Your task to perform on an android device: read, delete, or share a saved page in the chrome app Image 0: 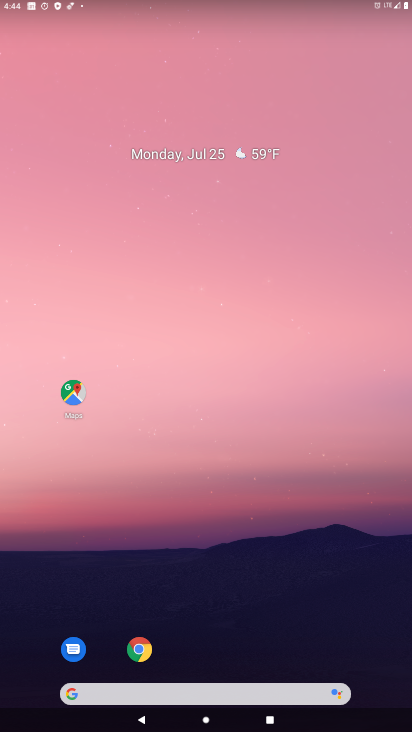
Step 0: drag from (322, 637) to (225, 33)
Your task to perform on an android device: read, delete, or share a saved page in the chrome app Image 1: 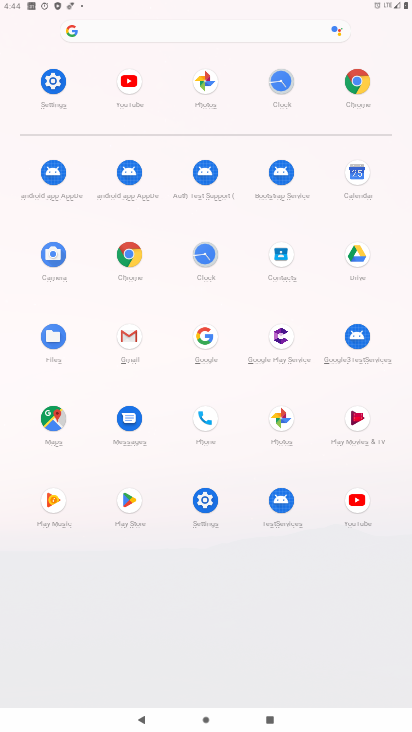
Step 1: click (359, 76)
Your task to perform on an android device: read, delete, or share a saved page in the chrome app Image 2: 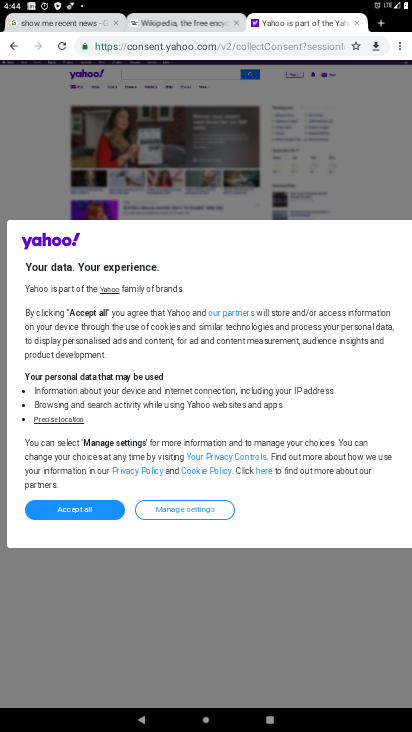
Step 2: click (403, 42)
Your task to perform on an android device: read, delete, or share a saved page in the chrome app Image 3: 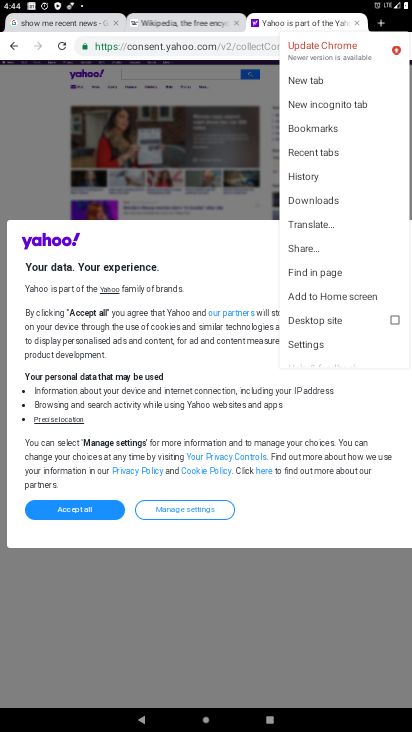
Step 3: click (325, 200)
Your task to perform on an android device: read, delete, or share a saved page in the chrome app Image 4: 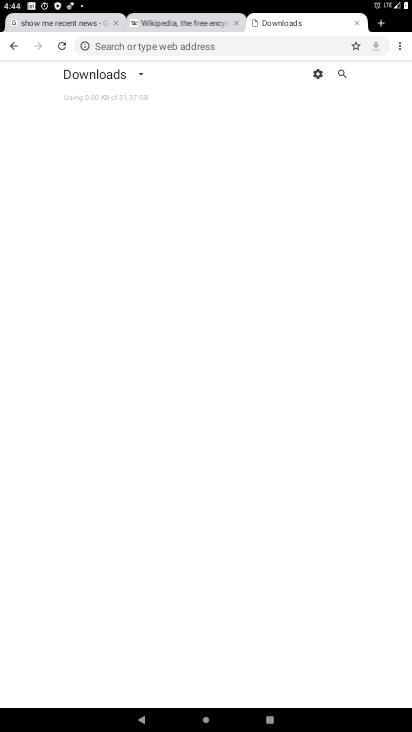
Step 4: click (129, 74)
Your task to perform on an android device: read, delete, or share a saved page in the chrome app Image 5: 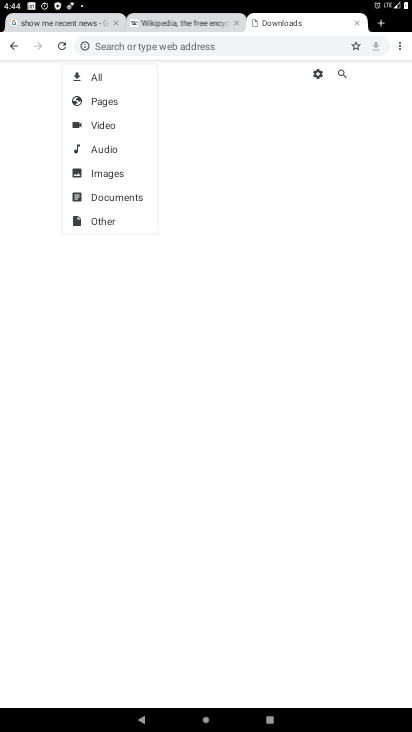
Step 5: click (110, 91)
Your task to perform on an android device: read, delete, or share a saved page in the chrome app Image 6: 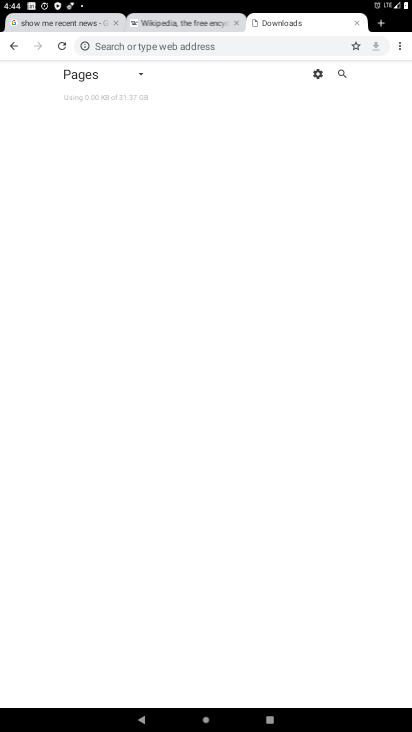
Step 6: task complete